Your task to perform on an android device: toggle translation in the chrome app Image 0: 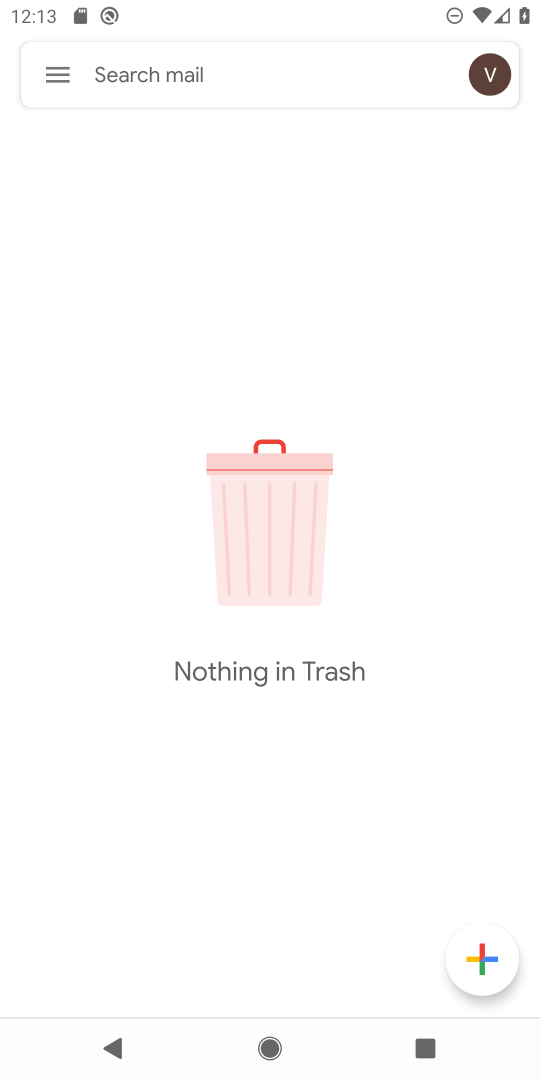
Step 0: press back button
Your task to perform on an android device: toggle translation in the chrome app Image 1: 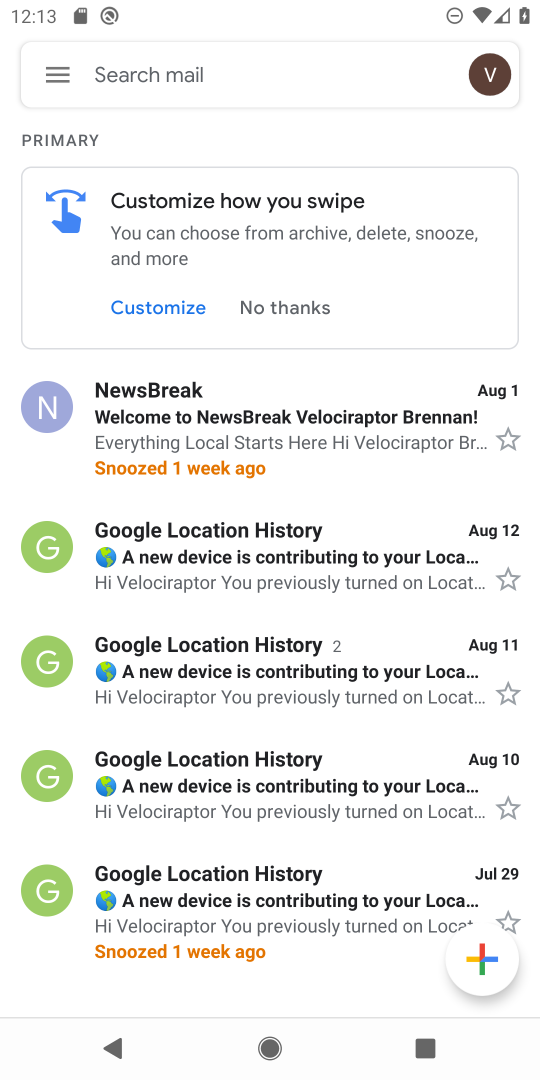
Step 1: press back button
Your task to perform on an android device: toggle translation in the chrome app Image 2: 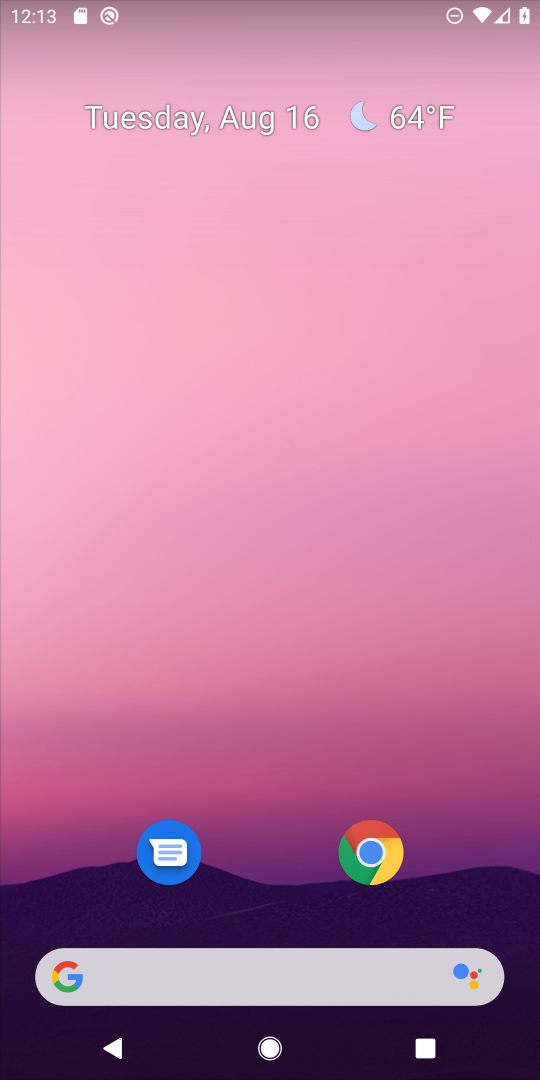
Step 2: click (358, 842)
Your task to perform on an android device: toggle translation in the chrome app Image 3: 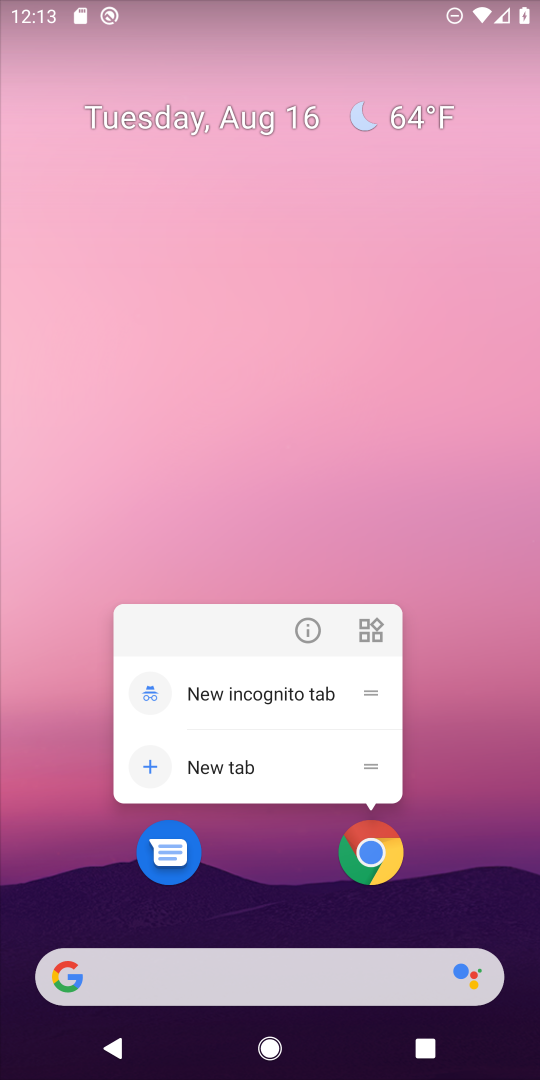
Step 3: click (385, 851)
Your task to perform on an android device: toggle translation in the chrome app Image 4: 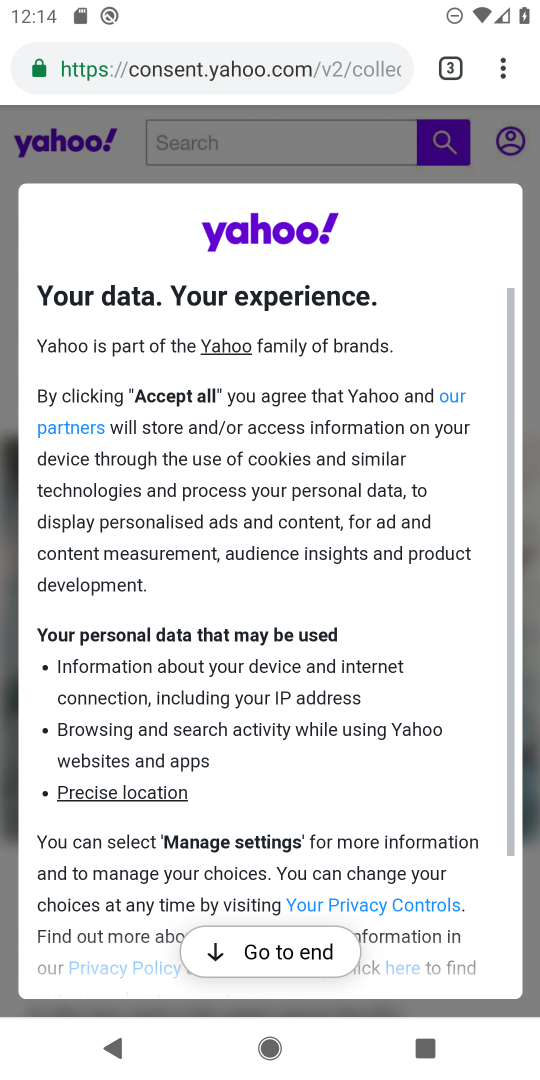
Step 4: drag from (506, 70) to (279, 898)
Your task to perform on an android device: toggle translation in the chrome app Image 5: 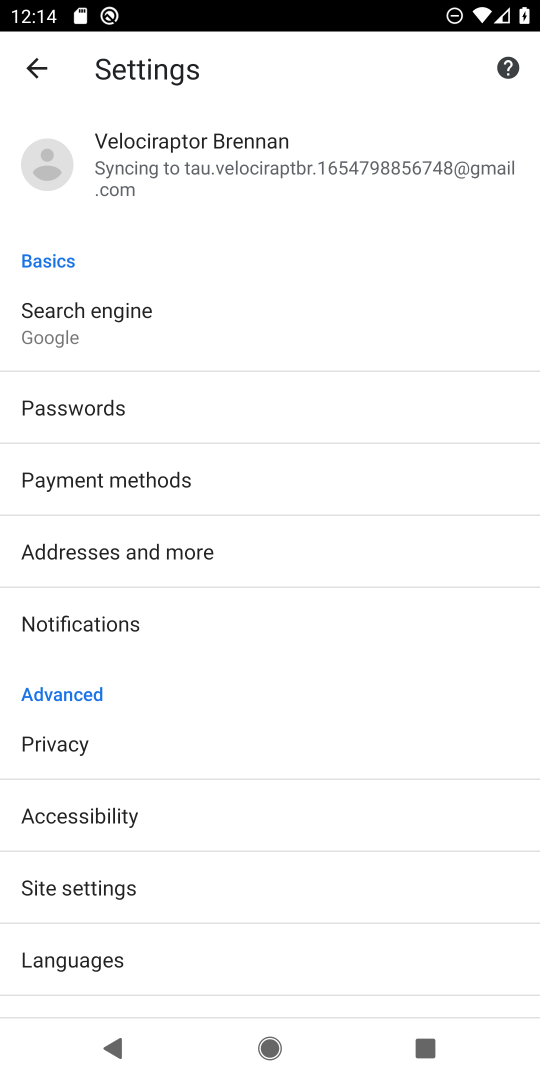
Step 5: click (197, 948)
Your task to perform on an android device: toggle translation in the chrome app Image 6: 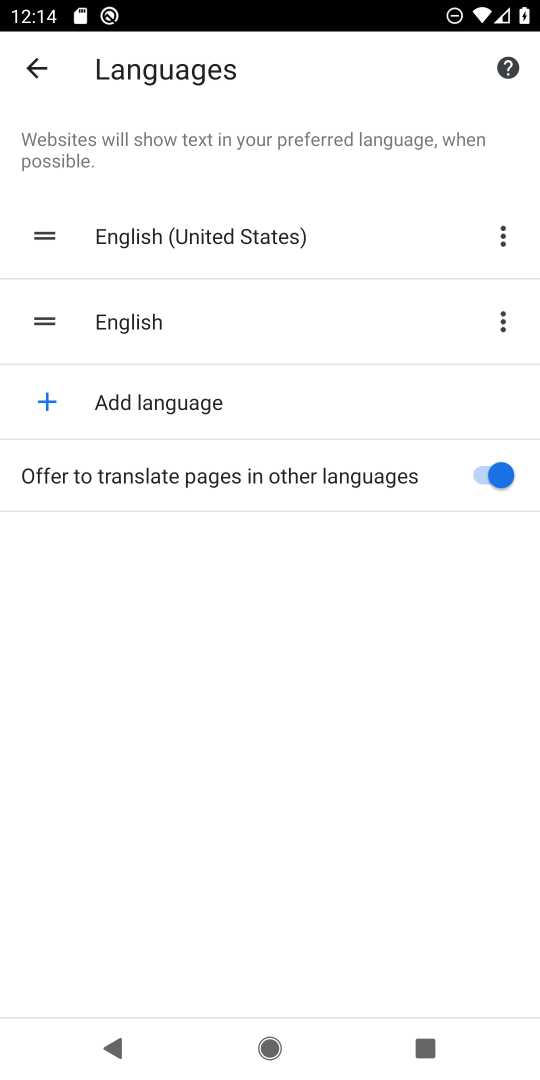
Step 6: task complete